Your task to perform on an android device: change the clock style Image 0: 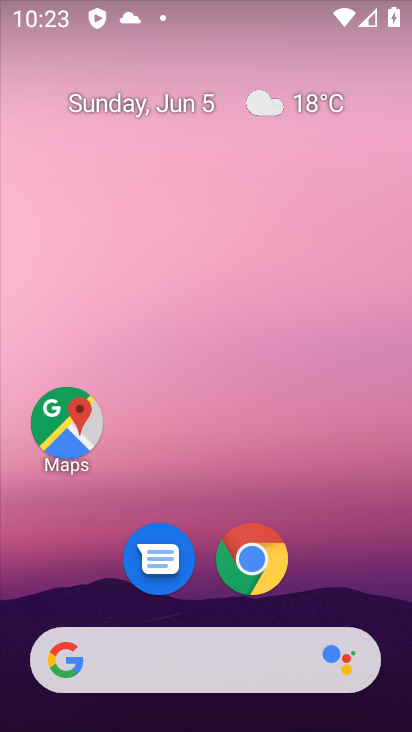
Step 0: drag from (361, 521) to (342, 40)
Your task to perform on an android device: change the clock style Image 1: 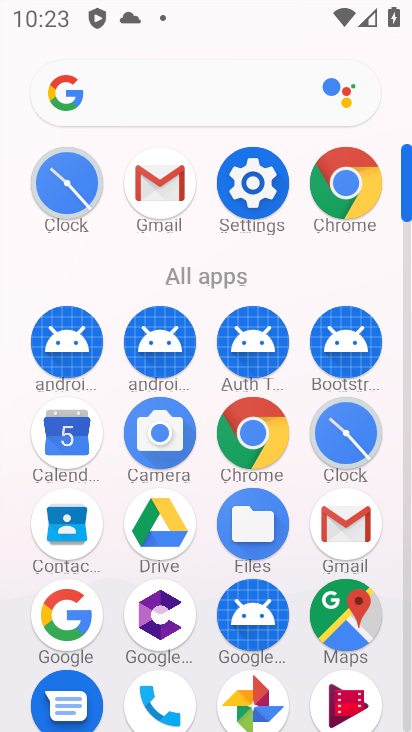
Step 1: click (356, 416)
Your task to perform on an android device: change the clock style Image 2: 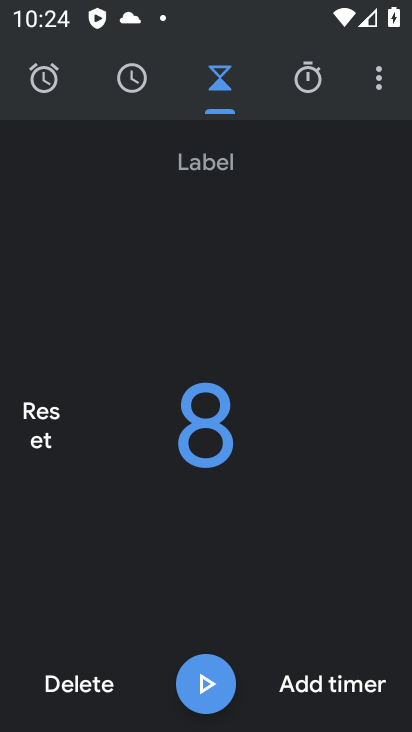
Step 2: click (379, 79)
Your task to perform on an android device: change the clock style Image 3: 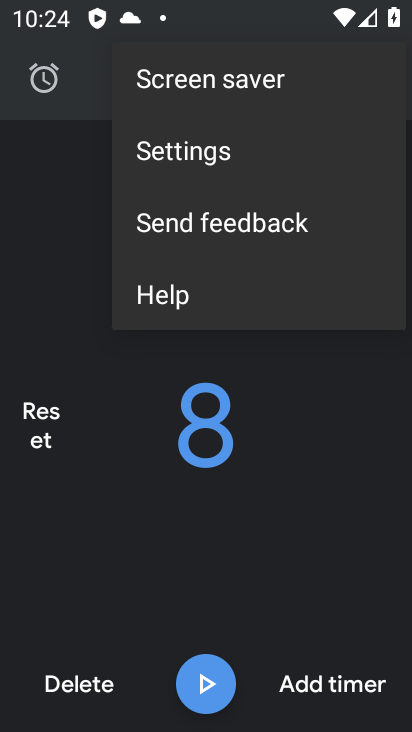
Step 3: click (227, 150)
Your task to perform on an android device: change the clock style Image 4: 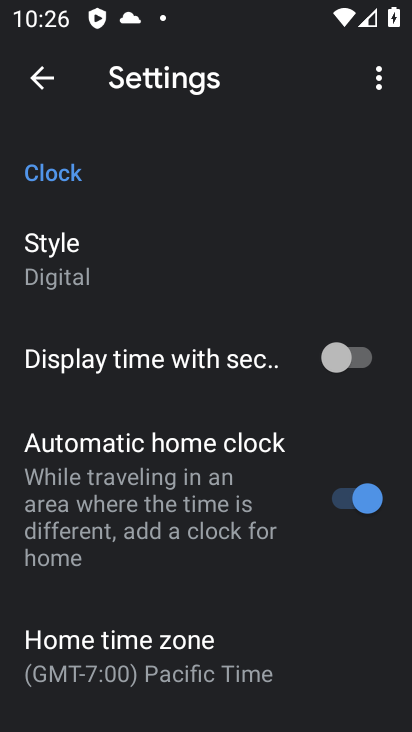
Step 4: click (79, 265)
Your task to perform on an android device: change the clock style Image 5: 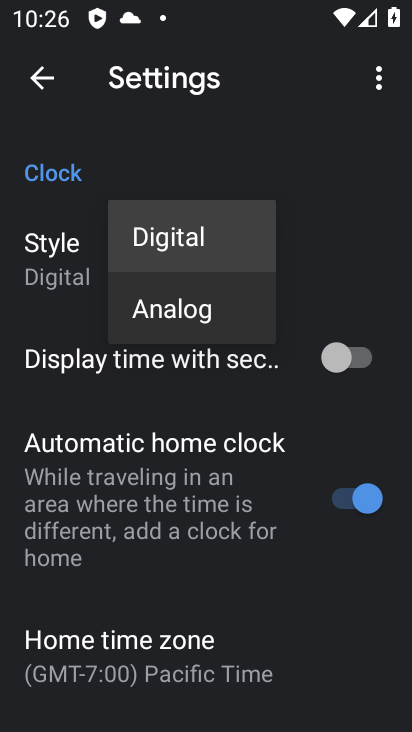
Step 5: click (185, 304)
Your task to perform on an android device: change the clock style Image 6: 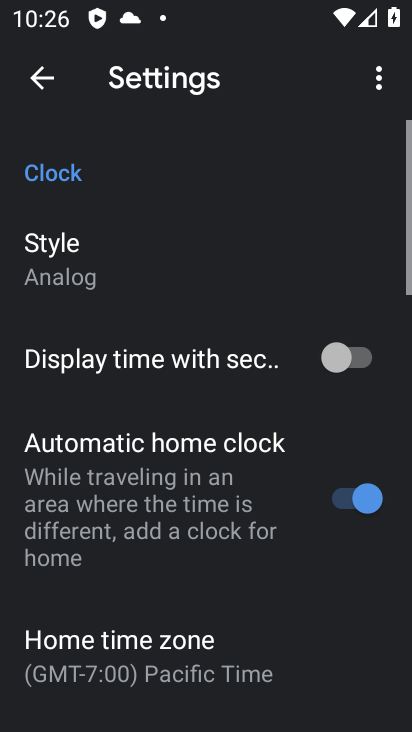
Step 6: task complete